Your task to perform on an android device: star an email in the gmail app Image 0: 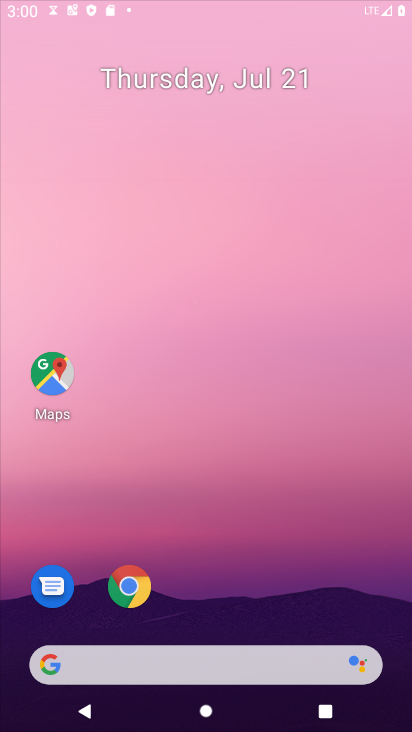
Step 0: drag from (254, 36) to (18, 347)
Your task to perform on an android device: star an email in the gmail app Image 1: 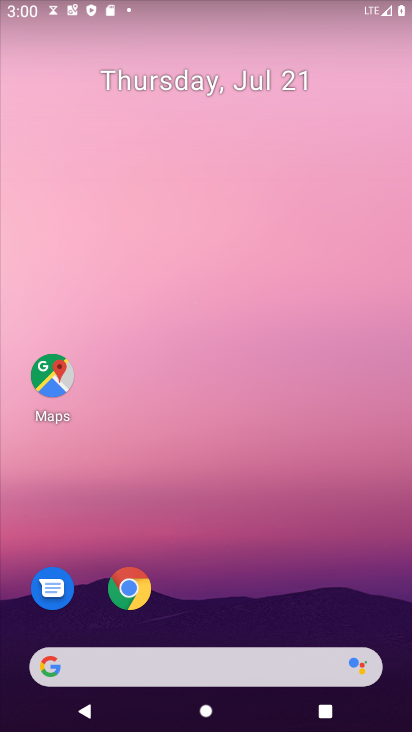
Step 1: drag from (180, 577) to (307, 105)
Your task to perform on an android device: star an email in the gmail app Image 2: 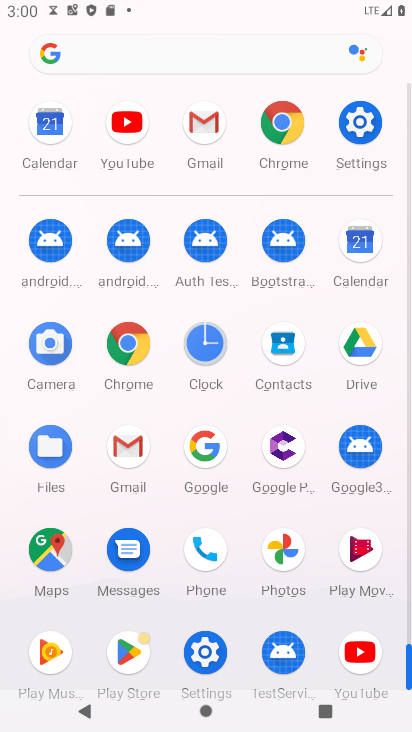
Step 2: click (124, 447)
Your task to perform on an android device: star an email in the gmail app Image 3: 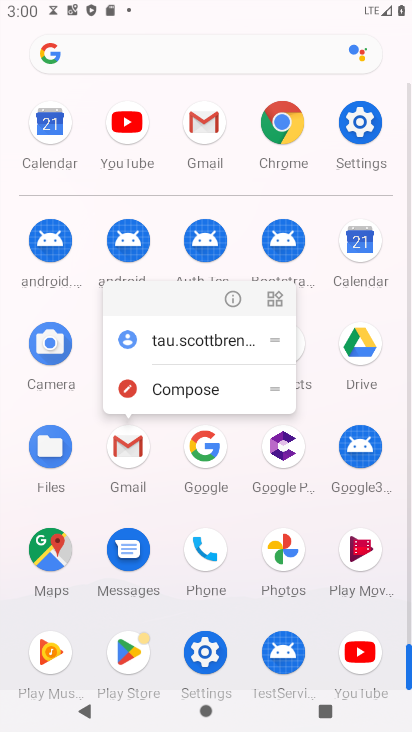
Step 3: click (233, 295)
Your task to perform on an android device: star an email in the gmail app Image 4: 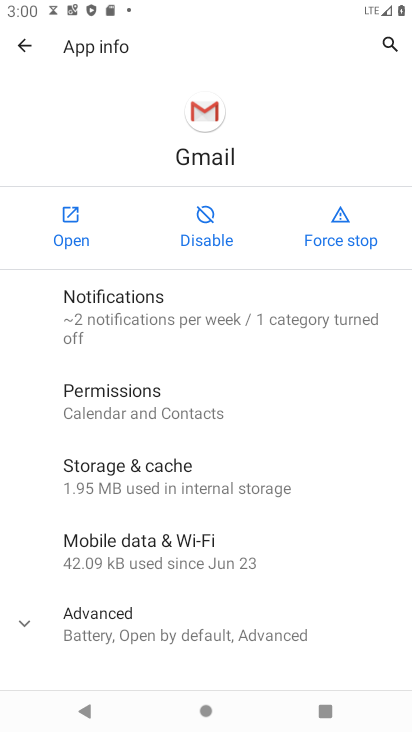
Step 4: click (74, 228)
Your task to perform on an android device: star an email in the gmail app Image 5: 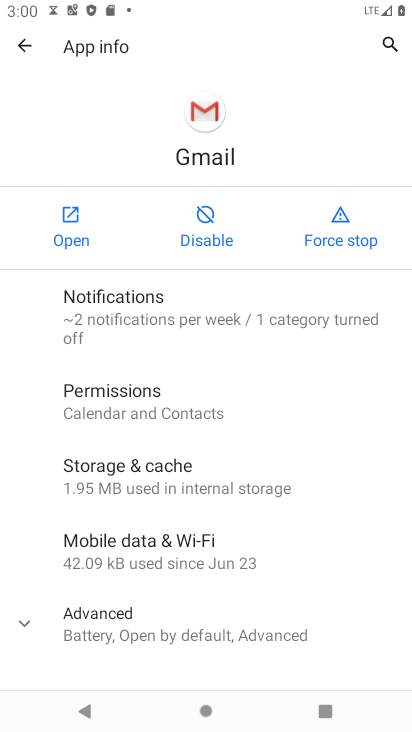
Step 5: click (74, 228)
Your task to perform on an android device: star an email in the gmail app Image 6: 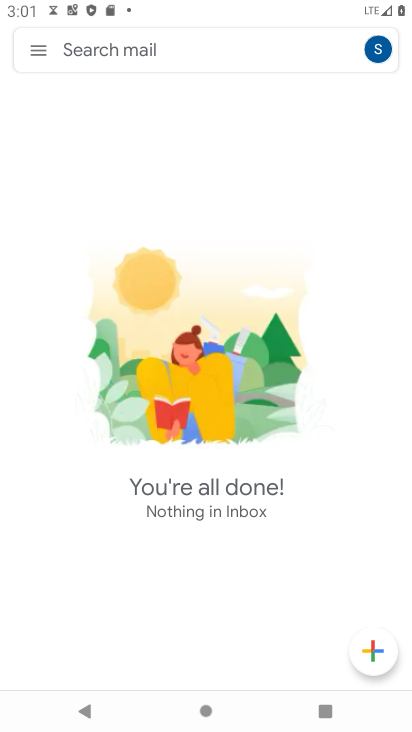
Step 6: drag from (270, 519) to (287, 365)
Your task to perform on an android device: star an email in the gmail app Image 7: 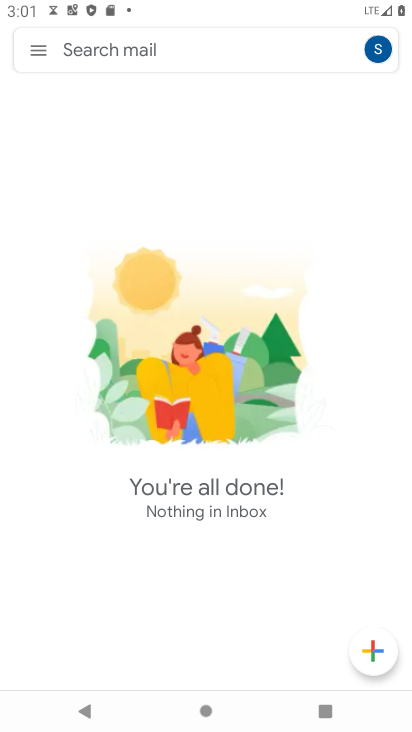
Step 7: click (39, 44)
Your task to perform on an android device: star an email in the gmail app Image 8: 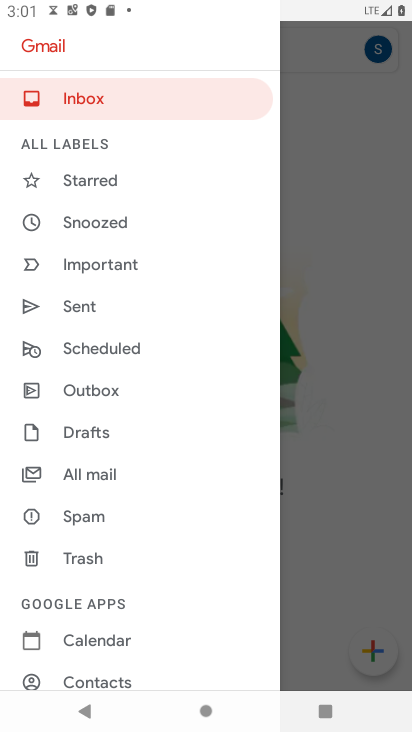
Step 8: click (305, 216)
Your task to perform on an android device: star an email in the gmail app Image 9: 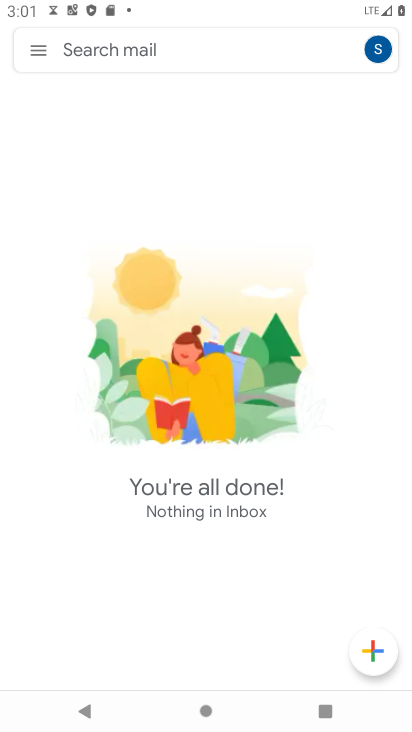
Step 9: task complete